Your task to perform on an android device: Turn on the flashlight Image 0: 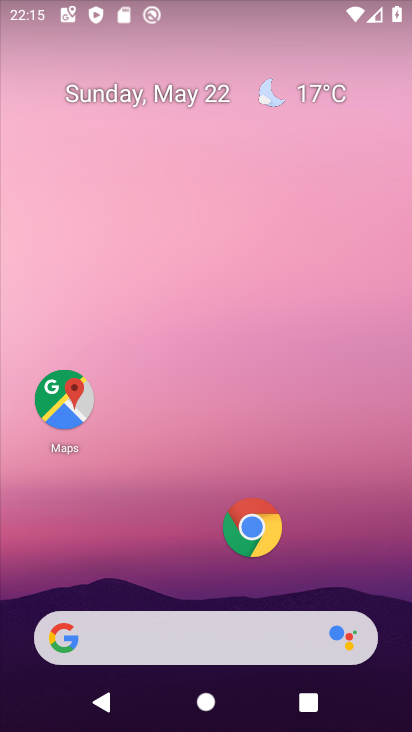
Step 0: drag from (172, 543) to (172, 6)
Your task to perform on an android device: Turn on the flashlight Image 1: 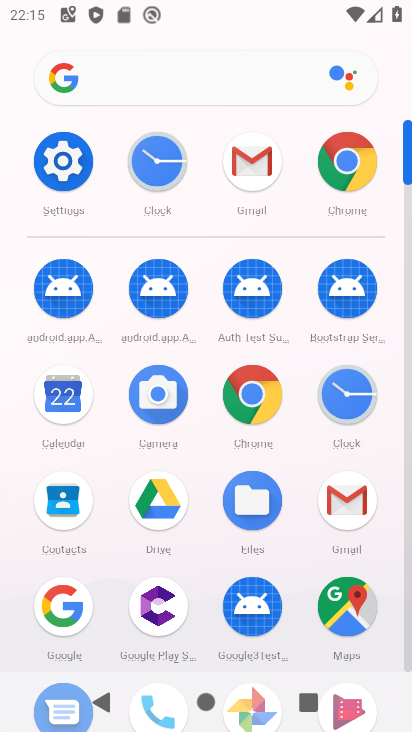
Step 1: click (60, 160)
Your task to perform on an android device: Turn on the flashlight Image 2: 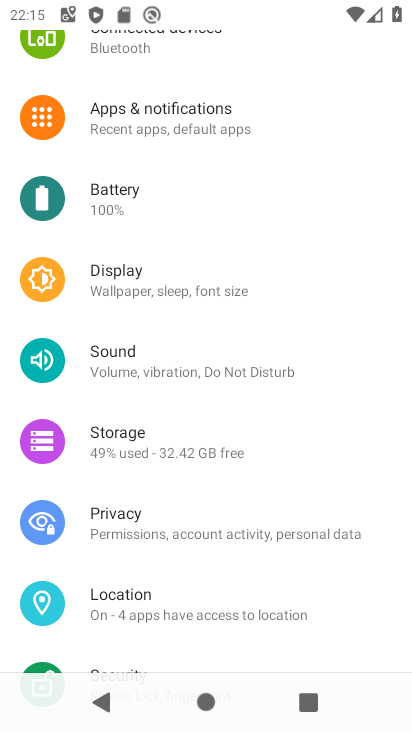
Step 2: drag from (228, 206) to (304, 639)
Your task to perform on an android device: Turn on the flashlight Image 3: 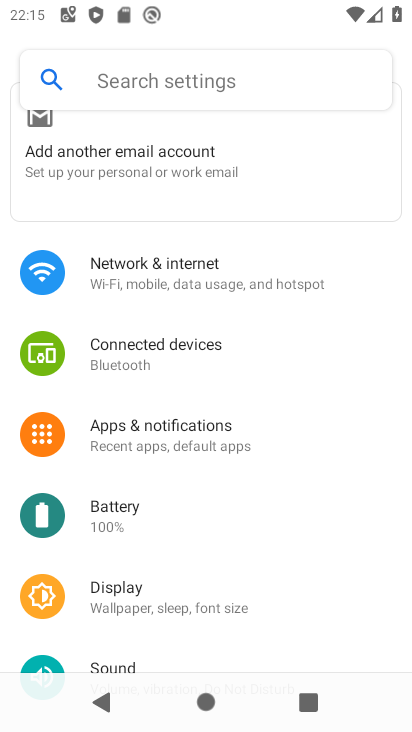
Step 3: click (118, 604)
Your task to perform on an android device: Turn on the flashlight Image 4: 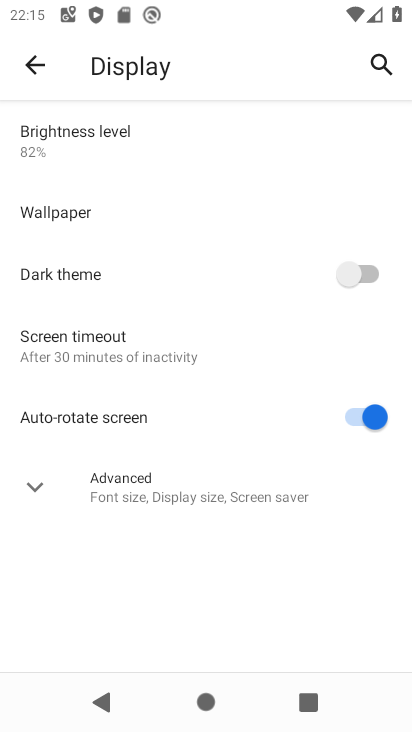
Step 4: click (30, 69)
Your task to perform on an android device: Turn on the flashlight Image 5: 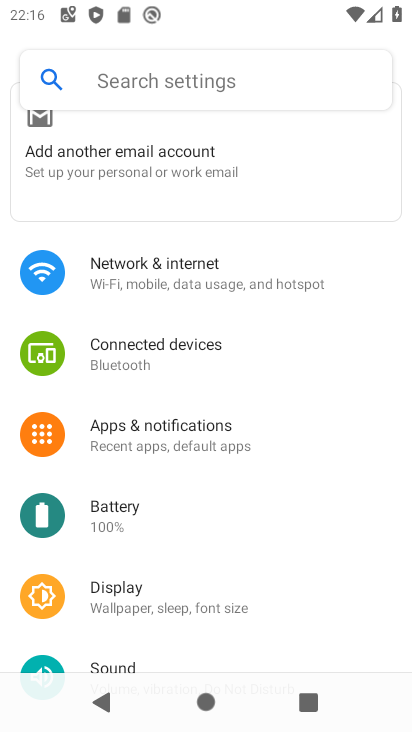
Step 5: task complete